Your task to perform on an android device: Go to Maps Image 0: 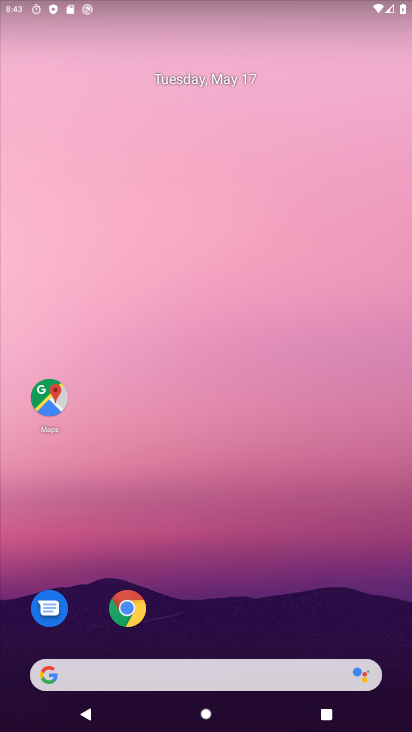
Step 0: drag from (304, 577) to (269, 63)
Your task to perform on an android device: Go to Maps Image 1: 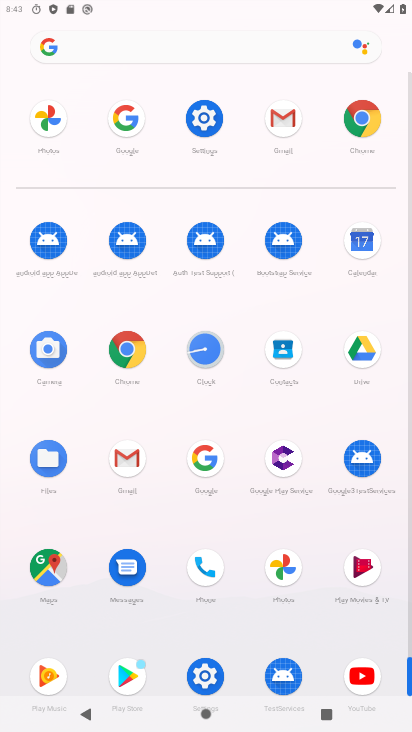
Step 1: click (52, 574)
Your task to perform on an android device: Go to Maps Image 2: 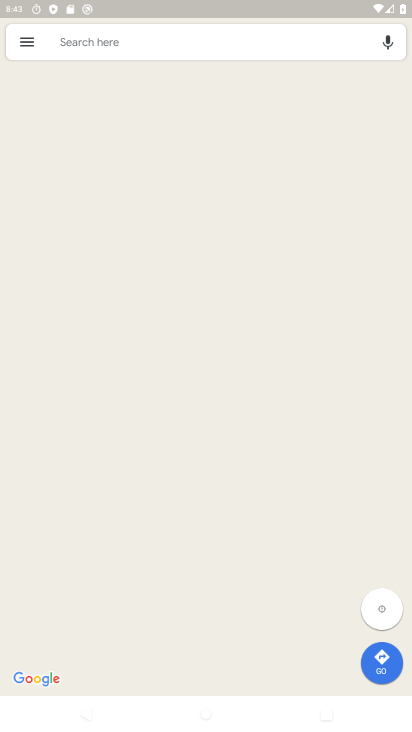
Step 2: click (106, 35)
Your task to perform on an android device: Go to Maps Image 3: 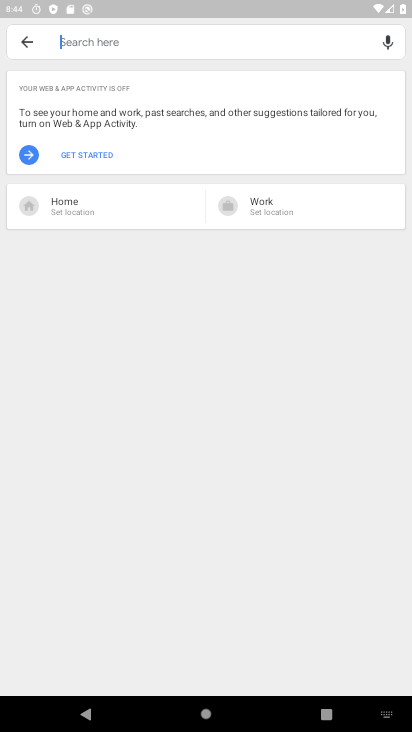
Step 3: click (18, 34)
Your task to perform on an android device: Go to Maps Image 4: 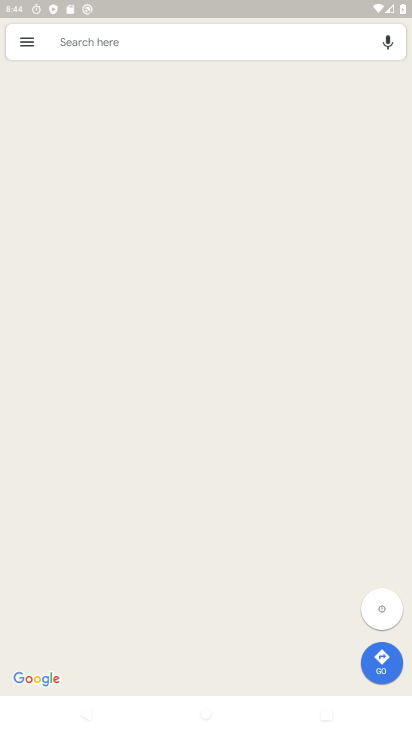
Step 4: task complete